Your task to perform on an android device: Go to settings Image 0: 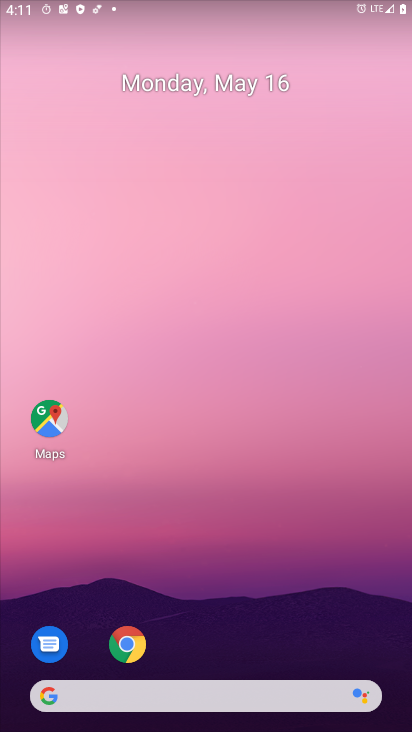
Step 0: drag from (203, 638) to (278, 165)
Your task to perform on an android device: Go to settings Image 1: 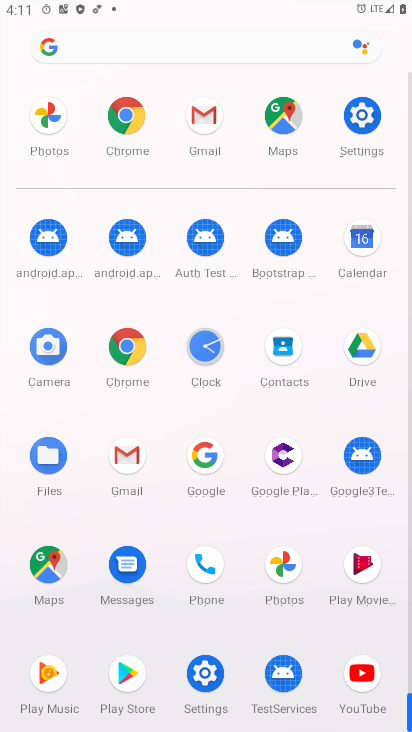
Step 1: click (372, 131)
Your task to perform on an android device: Go to settings Image 2: 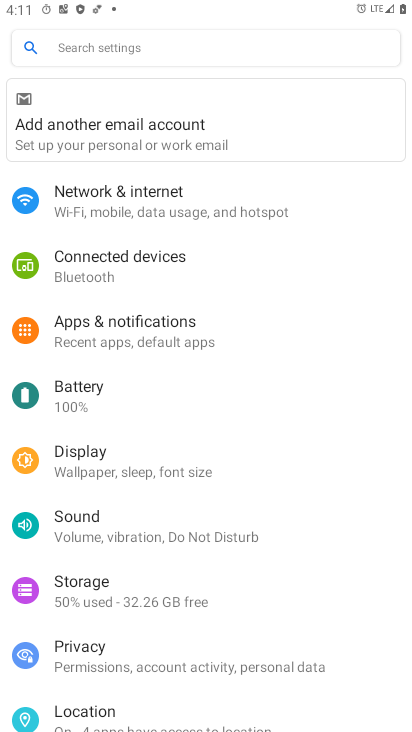
Step 2: task complete